Your task to perform on an android device: toggle sleep mode Image 0: 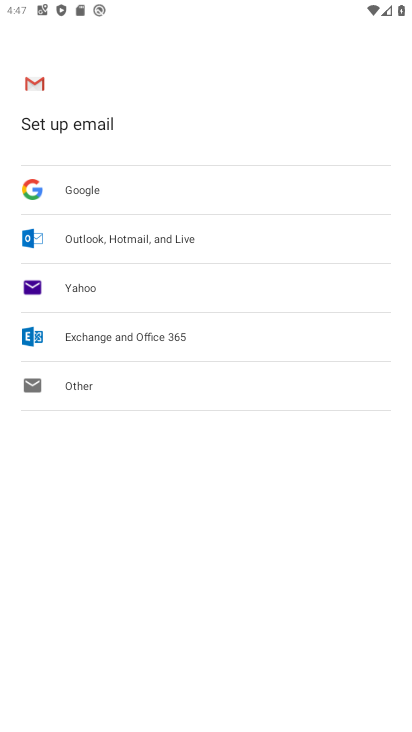
Step 0: press home button
Your task to perform on an android device: toggle sleep mode Image 1: 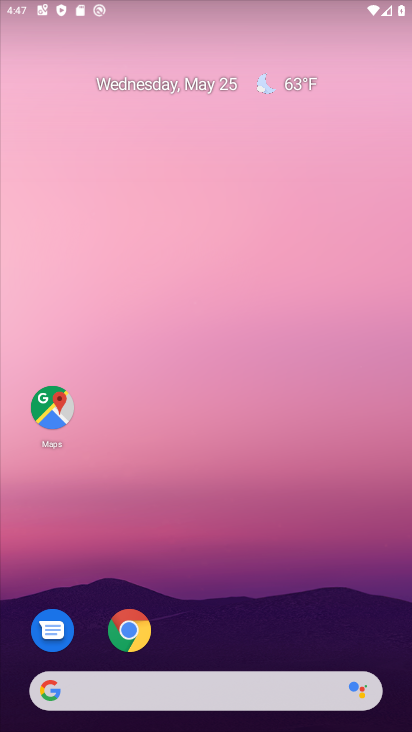
Step 1: drag from (176, 617) to (256, 45)
Your task to perform on an android device: toggle sleep mode Image 2: 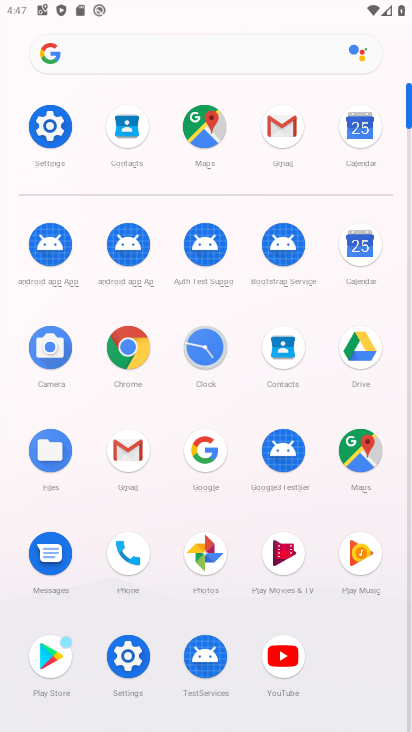
Step 2: click (37, 132)
Your task to perform on an android device: toggle sleep mode Image 3: 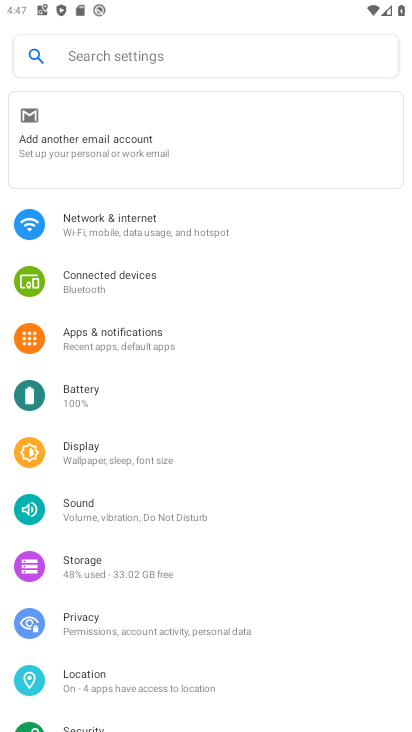
Step 3: click (123, 64)
Your task to perform on an android device: toggle sleep mode Image 4: 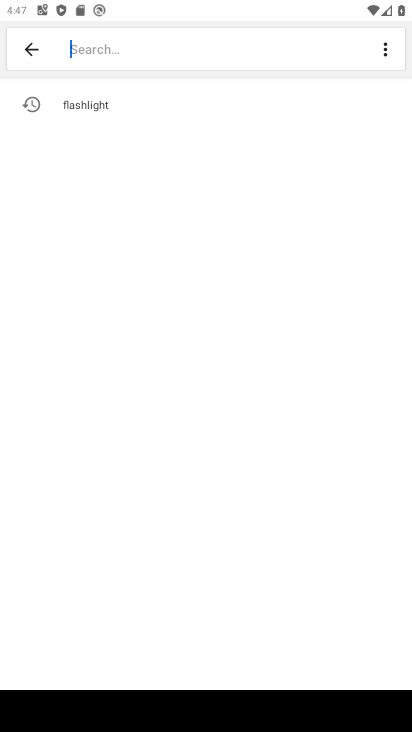
Step 4: type "sleep mode"
Your task to perform on an android device: toggle sleep mode Image 5: 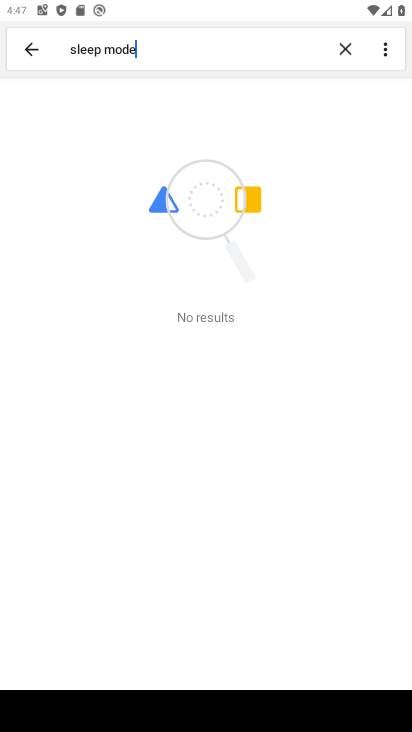
Step 5: task complete